Your task to perform on an android device: Search for sushi restaurants on Maps Image 0: 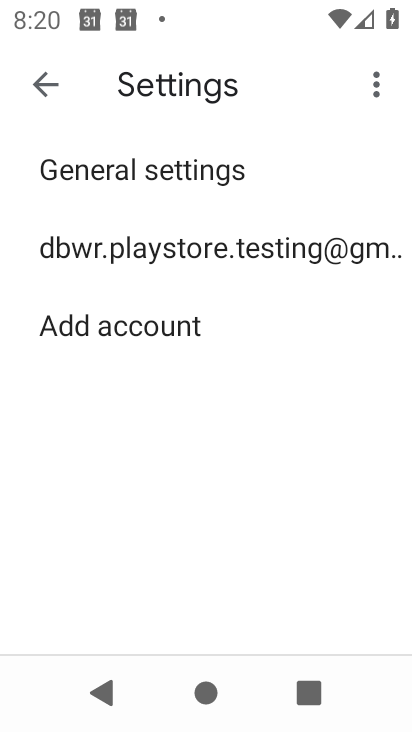
Step 0: press home button
Your task to perform on an android device: Search for sushi restaurants on Maps Image 1: 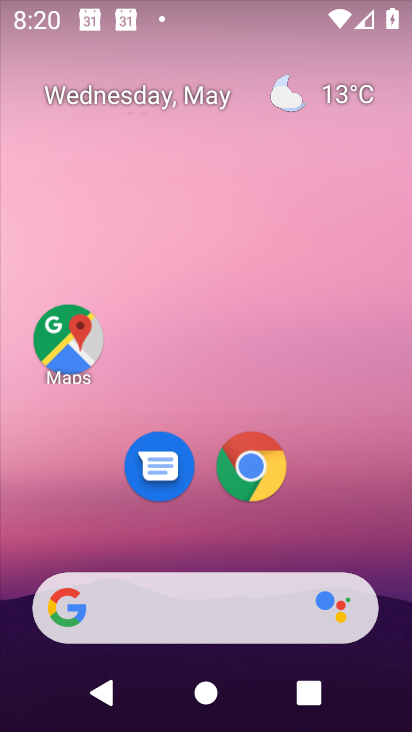
Step 1: click (79, 344)
Your task to perform on an android device: Search for sushi restaurants on Maps Image 2: 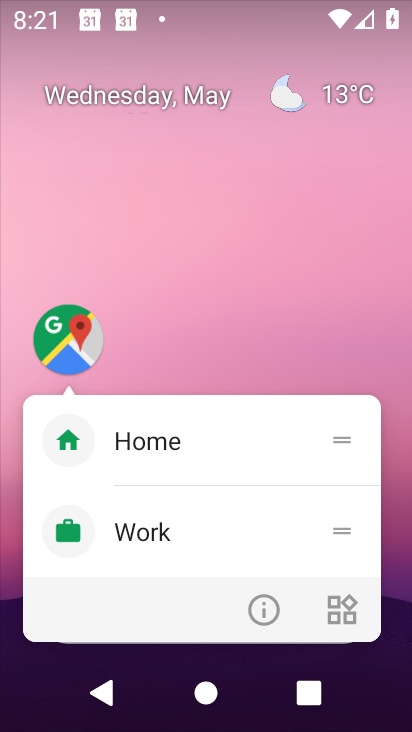
Step 2: click (61, 336)
Your task to perform on an android device: Search for sushi restaurants on Maps Image 3: 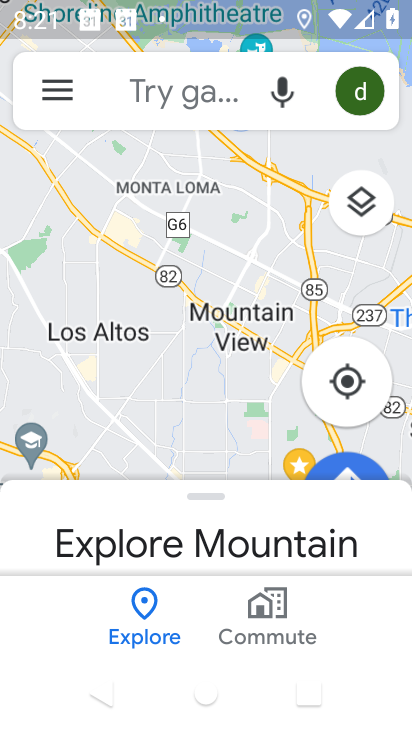
Step 3: click (144, 86)
Your task to perform on an android device: Search for sushi restaurants on Maps Image 4: 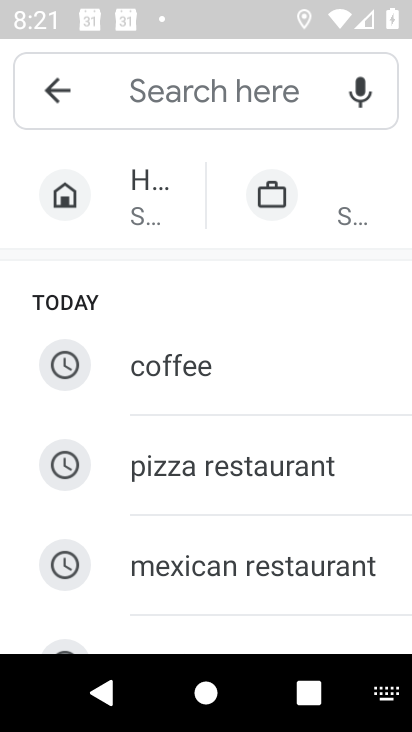
Step 4: drag from (211, 518) to (230, 74)
Your task to perform on an android device: Search for sushi restaurants on Maps Image 5: 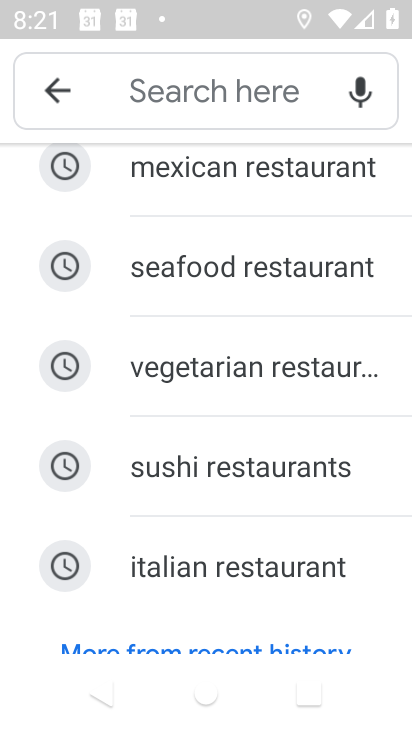
Step 5: click (171, 453)
Your task to perform on an android device: Search for sushi restaurants on Maps Image 6: 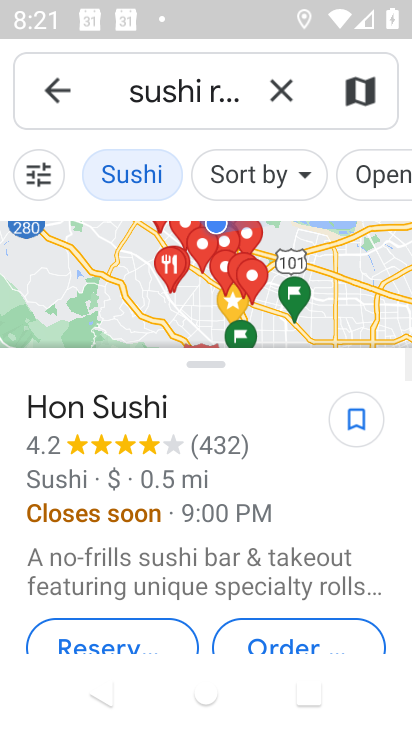
Step 6: task complete